Your task to perform on an android device: Open privacy settings Image 0: 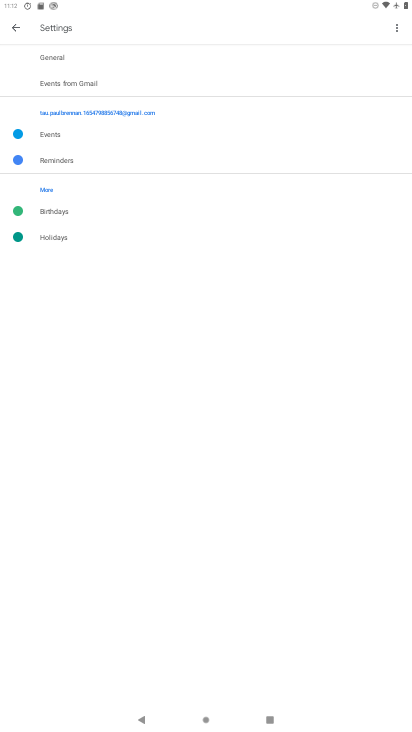
Step 0: press back button
Your task to perform on an android device: Open privacy settings Image 1: 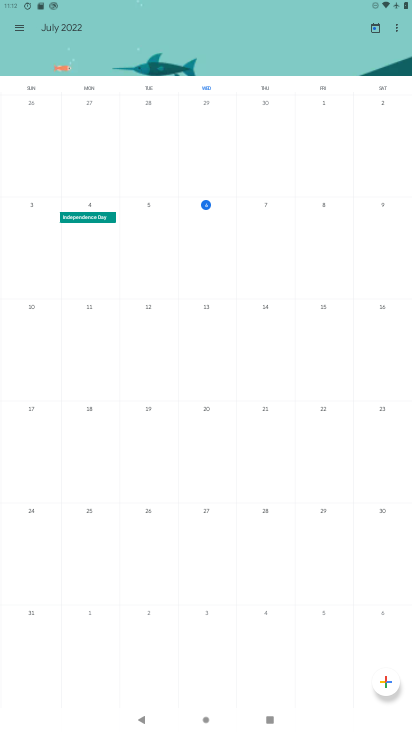
Step 1: press back button
Your task to perform on an android device: Open privacy settings Image 2: 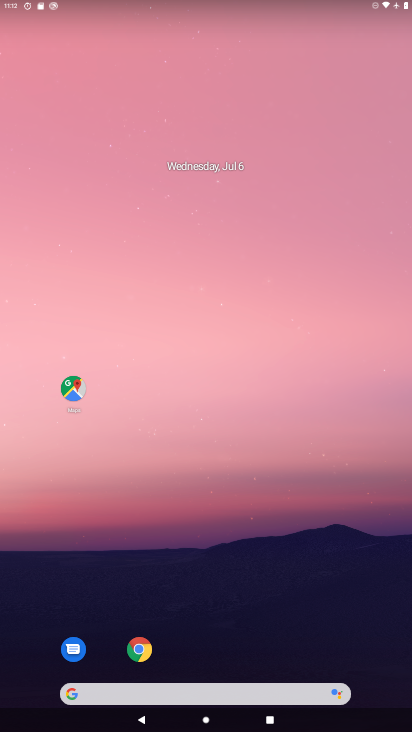
Step 2: drag from (388, 717) to (367, 209)
Your task to perform on an android device: Open privacy settings Image 3: 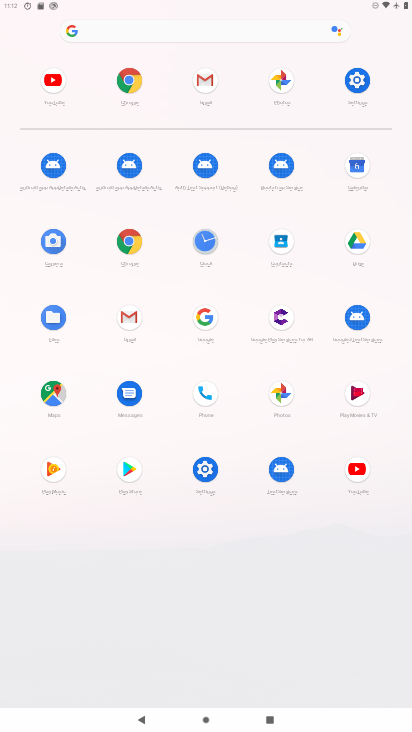
Step 3: click (353, 75)
Your task to perform on an android device: Open privacy settings Image 4: 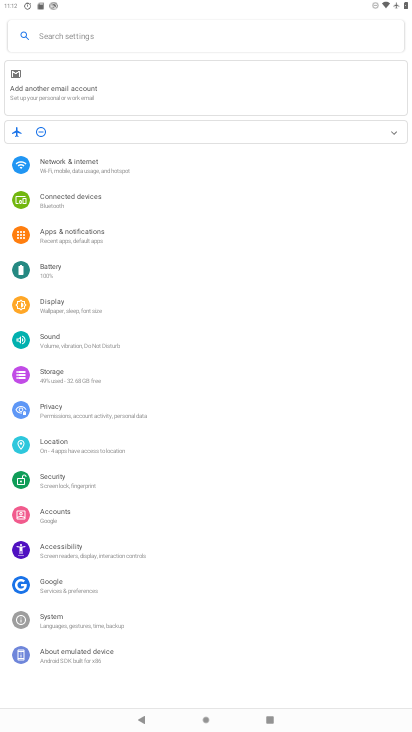
Step 4: click (44, 413)
Your task to perform on an android device: Open privacy settings Image 5: 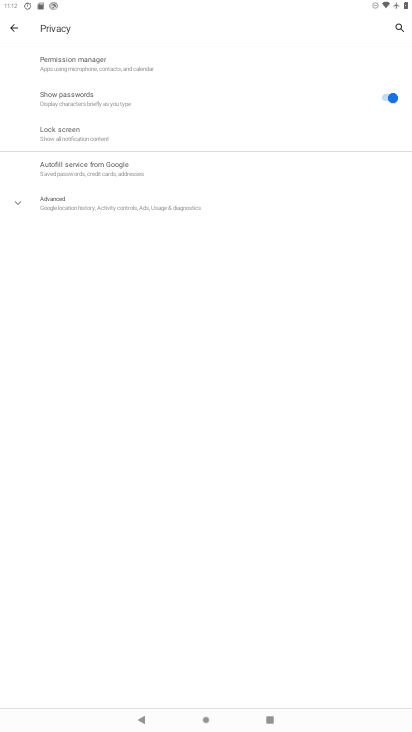
Step 5: task complete